Your task to perform on an android device: toggle notifications settings in the gmail app Image 0: 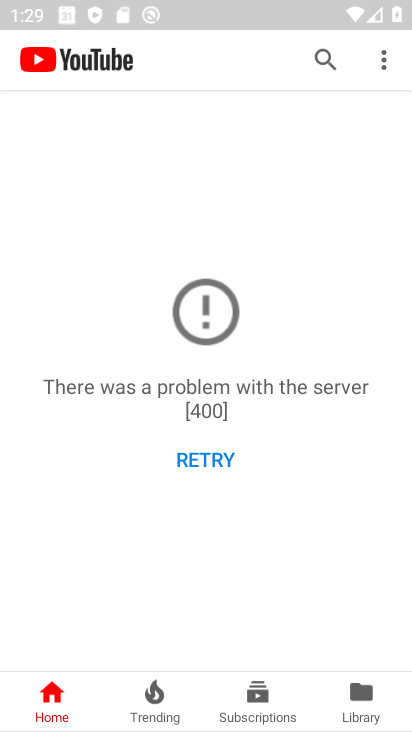
Step 0: press home button
Your task to perform on an android device: toggle notifications settings in the gmail app Image 1: 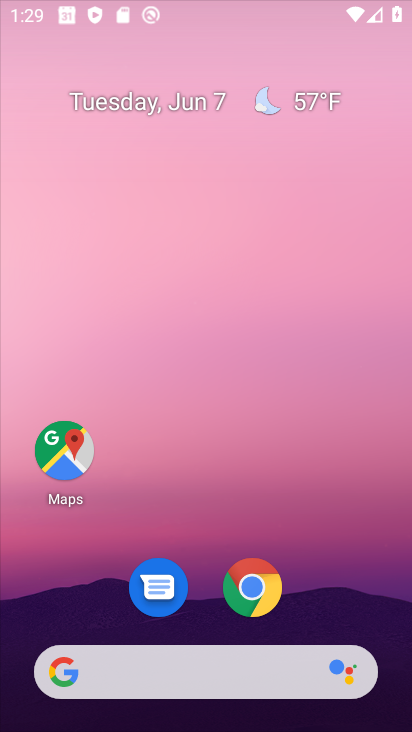
Step 1: drag from (112, 523) to (199, 140)
Your task to perform on an android device: toggle notifications settings in the gmail app Image 2: 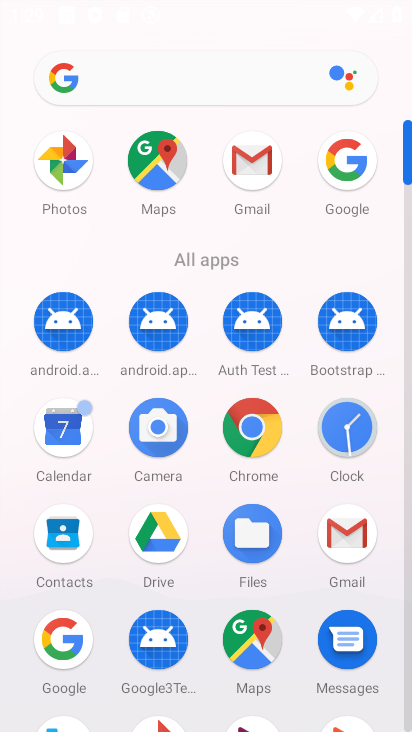
Step 2: click (329, 531)
Your task to perform on an android device: toggle notifications settings in the gmail app Image 3: 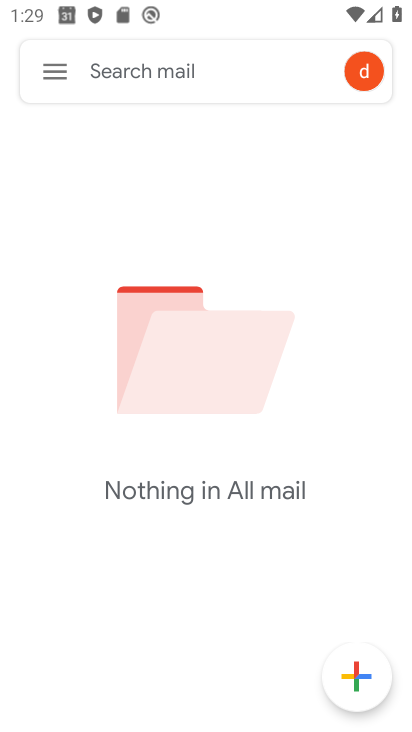
Step 3: click (74, 76)
Your task to perform on an android device: toggle notifications settings in the gmail app Image 4: 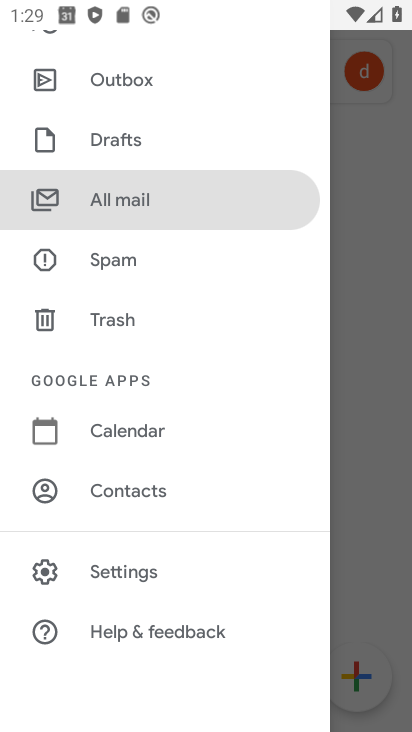
Step 4: click (71, 76)
Your task to perform on an android device: toggle notifications settings in the gmail app Image 5: 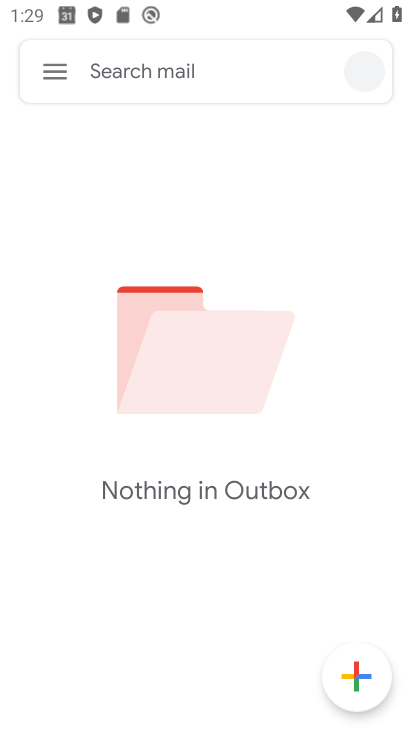
Step 5: click (71, 76)
Your task to perform on an android device: toggle notifications settings in the gmail app Image 6: 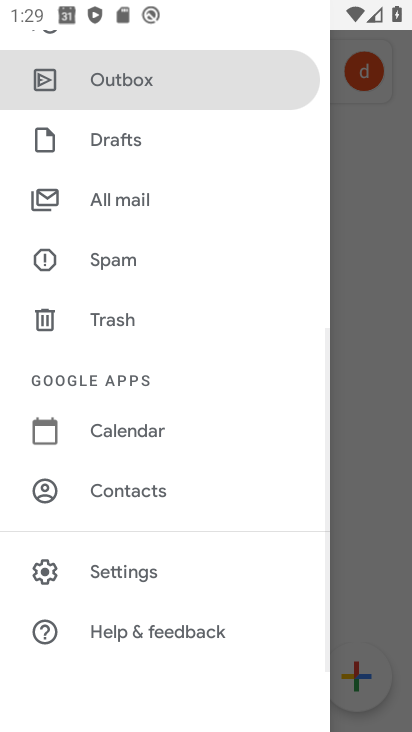
Step 6: click (119, 576)
Your task to perform on an android device: toggle notifications settings in the gmail app Image 7: 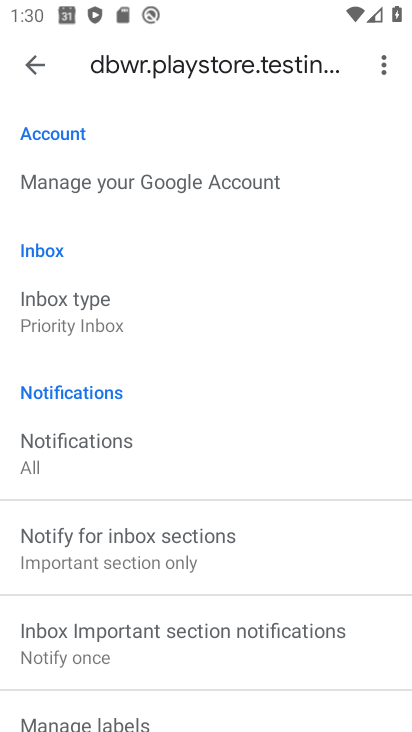
Step 7: drag from (169, 668) to (216, 352)
Your task to perform on an android device: toggle notifications settings in the gmail app Image 8: 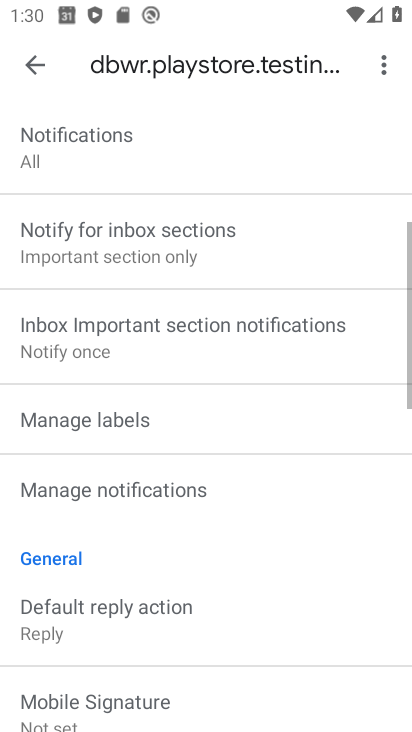
Step 8: click (159, 510)
Your task to perform on an android device: toggle notifications settings in the gmail app Image 9: 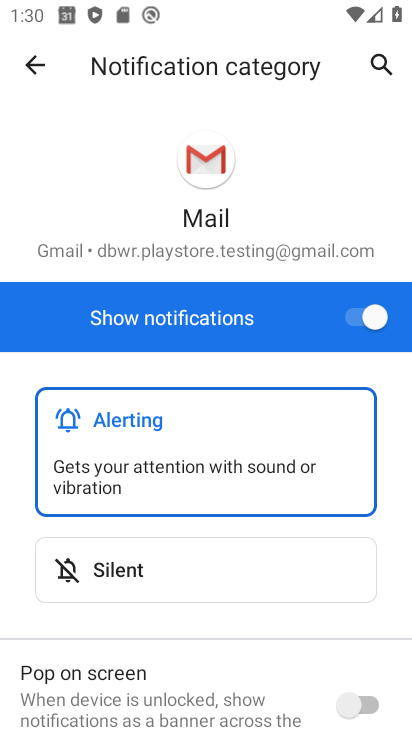
Step 9: click (363, 309)
Your task to perform on an android device: toggle notifications settings in the gmail app Image 10: 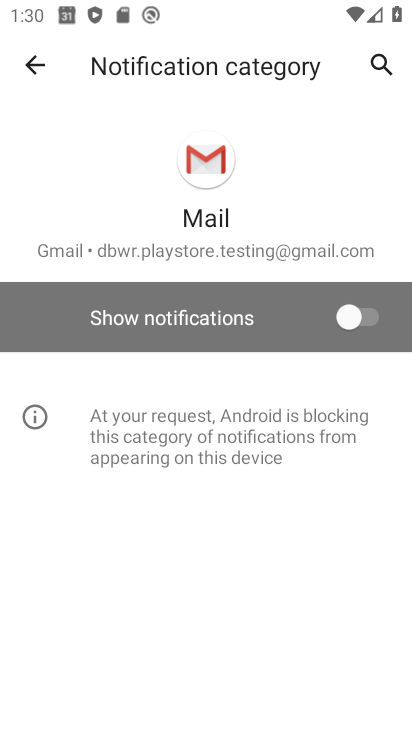
Step 10: task complete